Your task to perform on an android device: open chrome and create a bookmark for the current page Image 0: 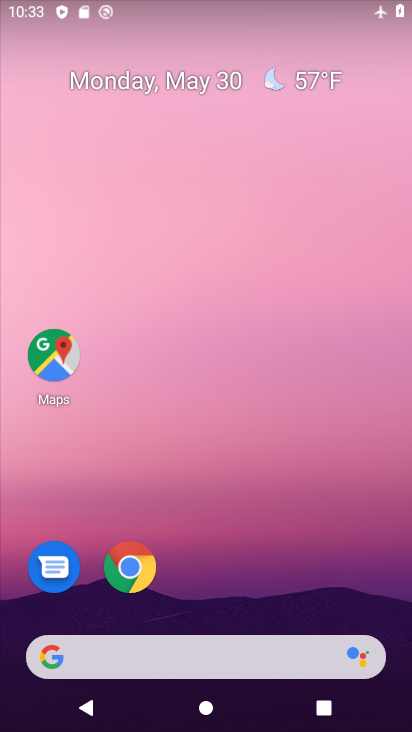
Step 0: click (117, 576)
Your task to perform on an android device: open chrome and create a bookmark for the current page Image 1: 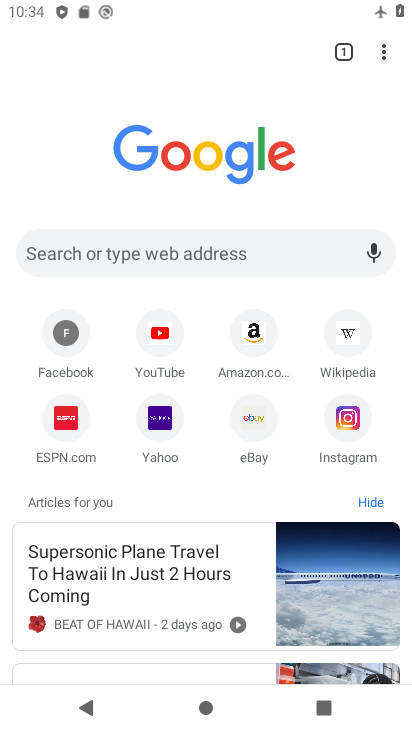
Step 1: click (169, 246)
Your task to perform on an android device: open chrome and create a bookmark for the current page Image 2: 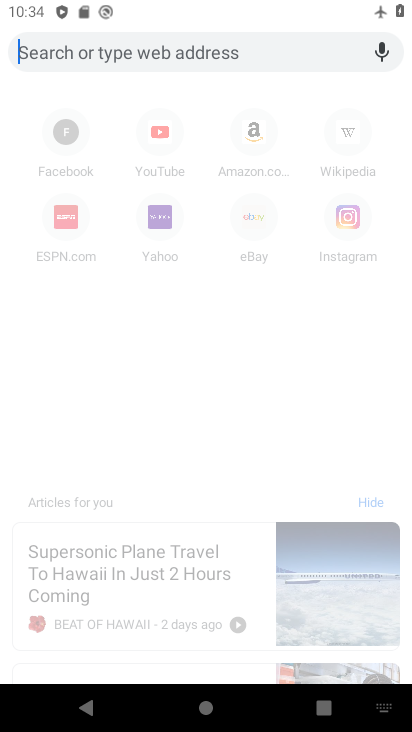
Step 2: type "xfhdft"
Your task to perform on an android device: open chrome and create a bookmark for the current page Image 3: 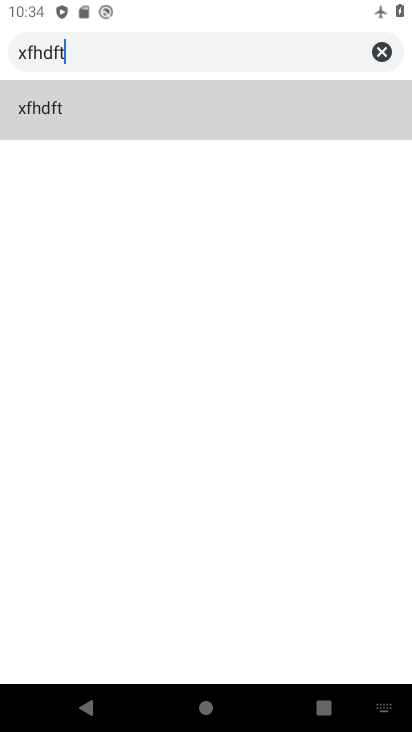
Step 3: click (279, 129)
Your task to perform on an android device: open chrome and create a bookmark for the current page Image 4: 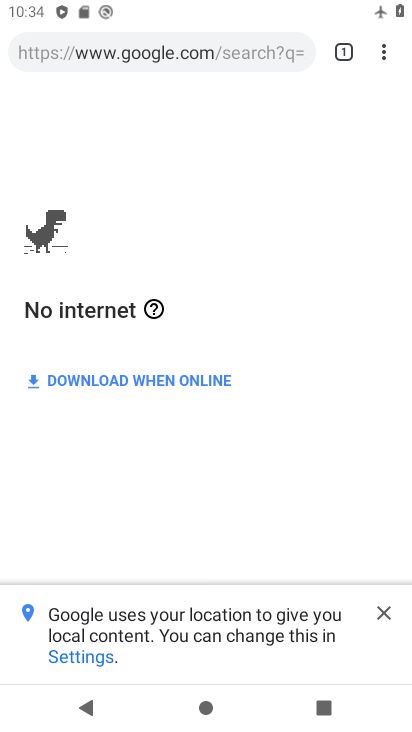
Step 4: task complete